Your task to perform on an android device: Clear the shopping cart on costco.com. Search for jbl flip 4 on costco.com, select the first entry, add it to the cart, then select checkout. Image 0: 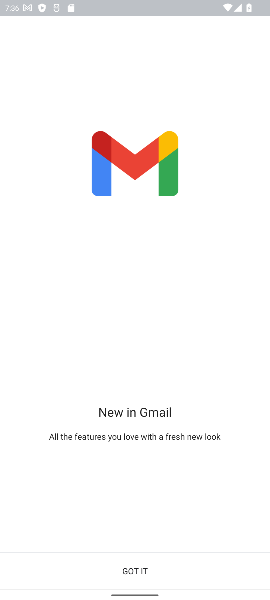
Step 0: press home button
Your task to perform on an android device: Clear the shopping cart on costco.com. Search for jbl flip 4 on costco.com, select the first entry, add it to the cart, then select checkout. Image 1: 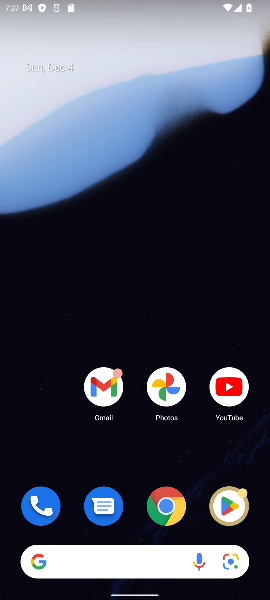
Step 1: click (175, 508)
Your task to perform on an android device: Clear the shopping cart on costco.com. Search for jbl flip 4 on costco.com, select the first entry, add it to the cart, then select checkout. Image 2: 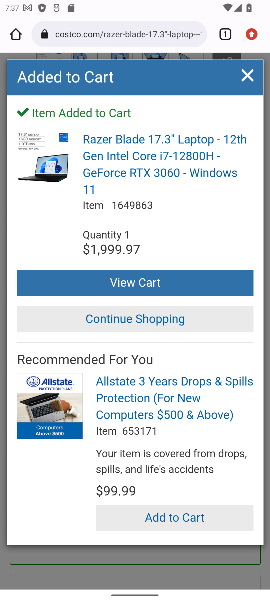
Step 2: click (248, 76)
Your task to perform on an android device: Clear the shopping cart on costco.com. Search for jbl flip 4 on costco.com, select the first entry, add it to the cart, then select checkout. Image 3: 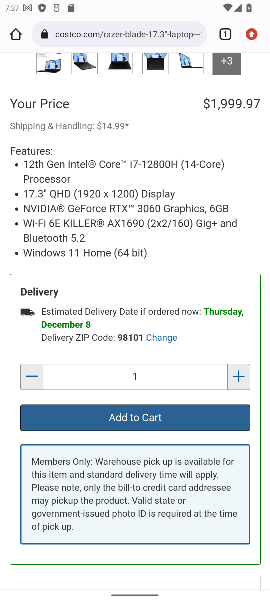
Step 3: click (126, 34)
Your task to perform on an android device: Clear the shopping cart on costco.com. Search for jbl flip 4 on costco.com, select the first entry, add it to the cart, then select checkout. Image 4: 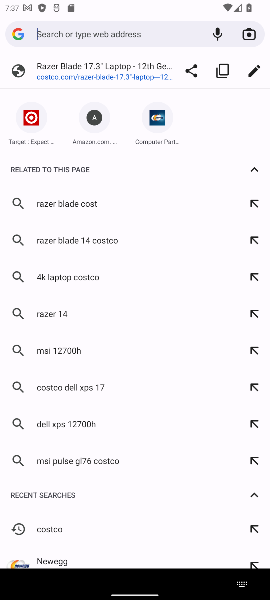
Step 4: click (61, 531)
Your task to perform on an android device: Clear the shopping cart on costco.com. Search for jbl flip 4 on costco.com, select the first entry, add it to the cart, then select checkout. Image 5: 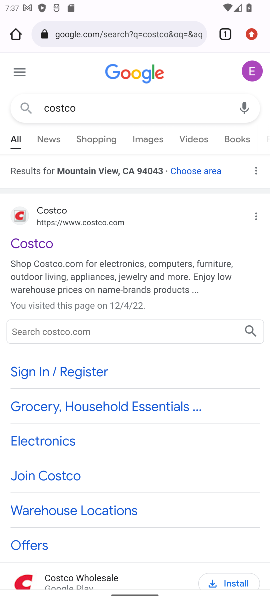
Step 5: click (27, 248)
Your task to perform on an android device: Clear the shopping cart on costco.com. Search for jbl flip 4 on costco.com, select the first entry, add it to the cart, then select checkout. Image 6: 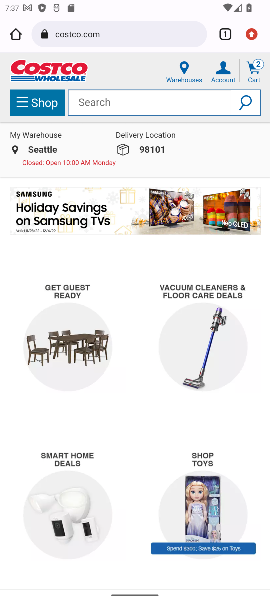
Step 6: click (260, 60)
Your task to perform on an android device: Clear the shopping cart on costco.com. Search for jbl flip 4 on costco.com, select the first entry, add it to the cart, then select checkout. Image 7: 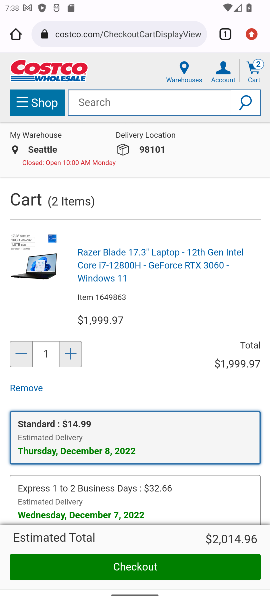
Step 7: click (257, 62)
Your task to perform on an android device: Clear the shopping cart on costco.com. Search for jbl flip 4 on costco.com, select the first entry, add it to the cart, then select checkout. Image 8: 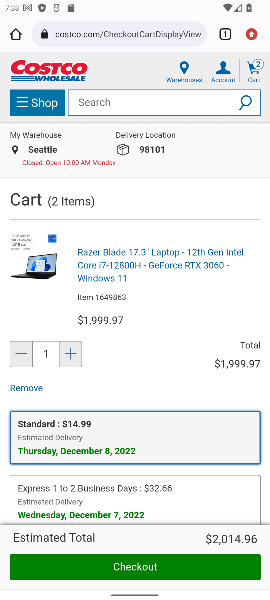
Step 8: click (23, 354)
Your task to perform on an android device: Clear the shopping cart on costco.com. Search for jbl flip 4 on costco.com, select the first entry, add it to the cart, then select checkout. Image 9: 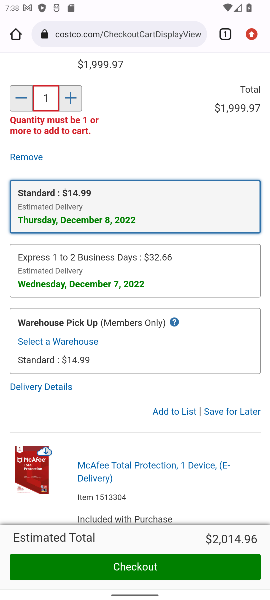
Step 9: click (18, 96)
Your task to perform on an android device: Clear the shopping cart on costco.com. Search for jbl flip 4 on costco.com, select the first entry, add it to the cart, then select checkout. Image 10: 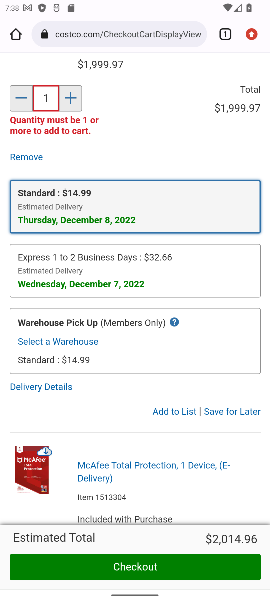
Step 10: click (27, 160)
Your task to perform on an android device: Clear the shopping cart on costco.com. Search for jbl flip 4 on costco.com, select the first entry, add it to the cart, then select checkout. Image 11: 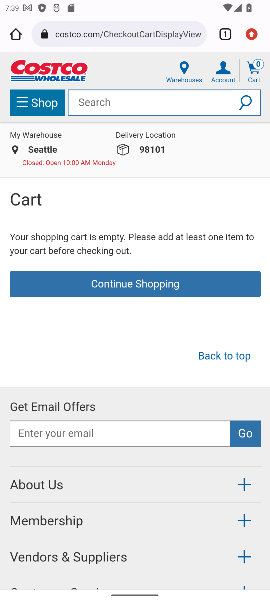
Step 11: click (100, 96)
Your task to perform on an android device: Clear the shopping cart on costco.com. Search for jbl flip 4 on costco.com, select the first entry, add it to the cart, then select checkout. Image 12: 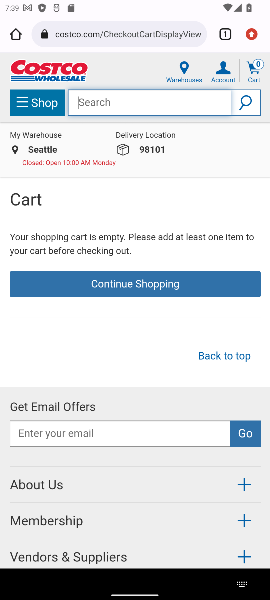
Step 12: type " jbl flip 4"
Your task to perform on an android device: Clear the shopping cart on costco.com. Search for jbl flip 4 on costco.com, select the first entry, add it to the cart, then select checkout. Image 13: 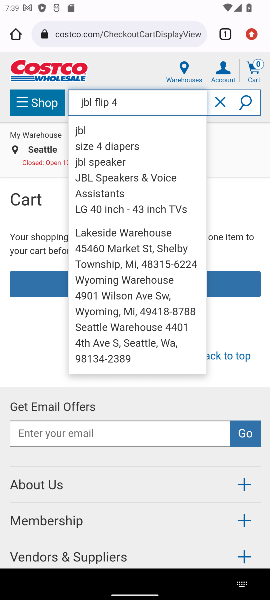
Step 13: click (245, 110)
Your task to perform on an android device: Clear the shopping cart on costco.com. Search for jbl flip 4 on costco.com, select the first entry, add it to the cart, then select checkout. Image 14: 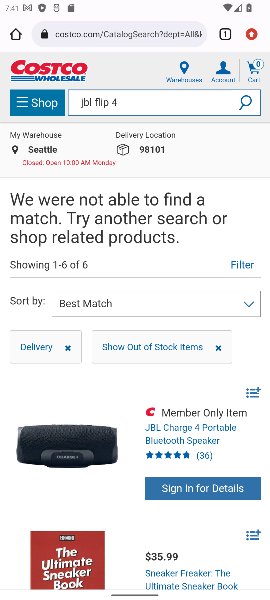
Step 14: task complete